Your task to perform on an android device: See recent photos Image 0: 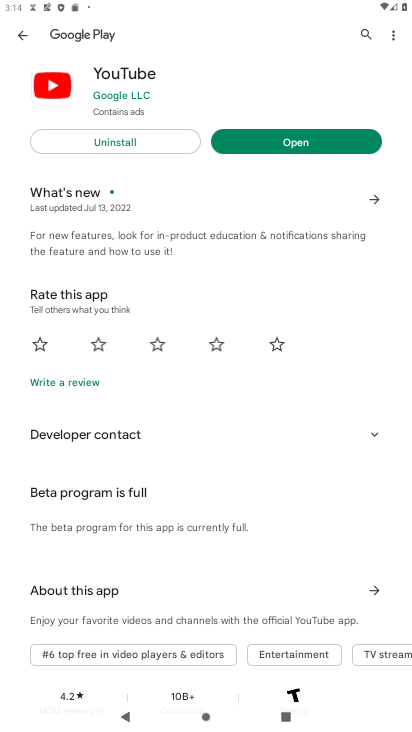
Step 0: press home button
Your task to perform on an android device: See recent photos Image 1: 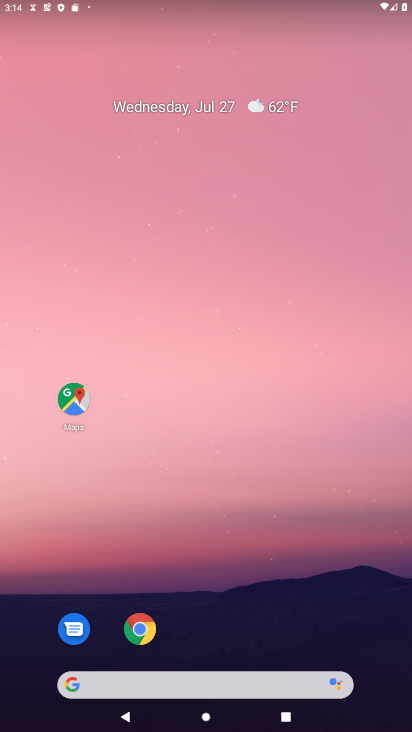
Step 1: drag from (209, 685) to (197, 105)
Your task to perform on an android device: See recent photos Image 2: 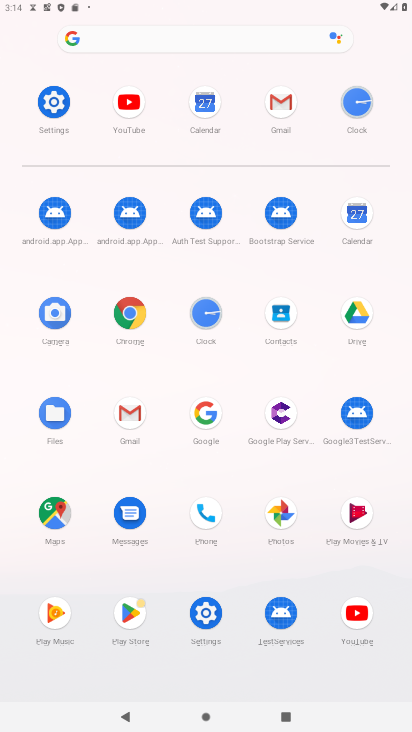
Step 2: click (282, 514)
Your task to perform on an android device: See recent photos Image 3: 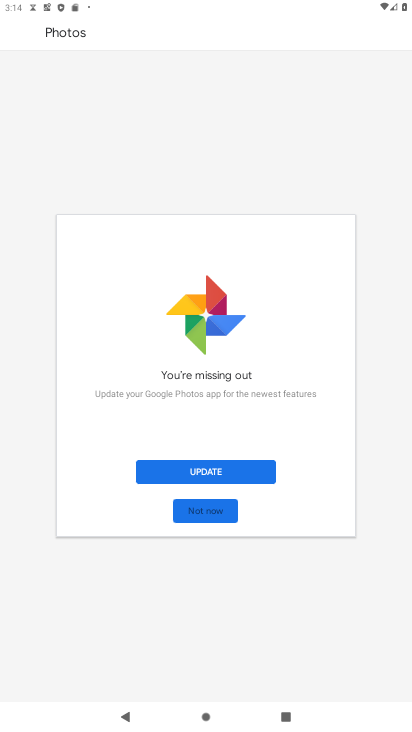
Step 3: click (192, 475)
Your task to perform on an android device: See recent photos Image 4: 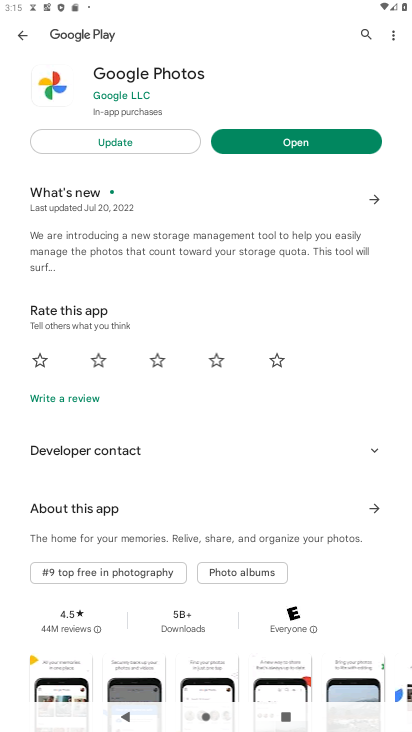
Step 4: click (114, 143)
Your task to perform on an android device: See recent photos Image 5: 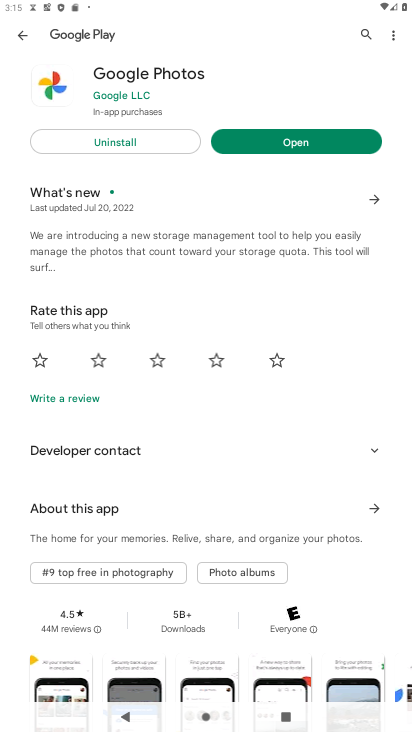
Step 5: click (130, 193)
Your task to perform on an android device: See recent photos Image 6: 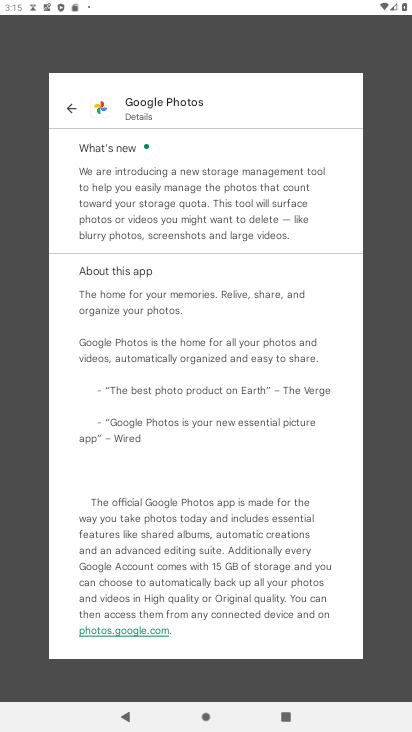
Step 6: click (64, 108)
Your task to perform on an android device: See recent photos Image 7: 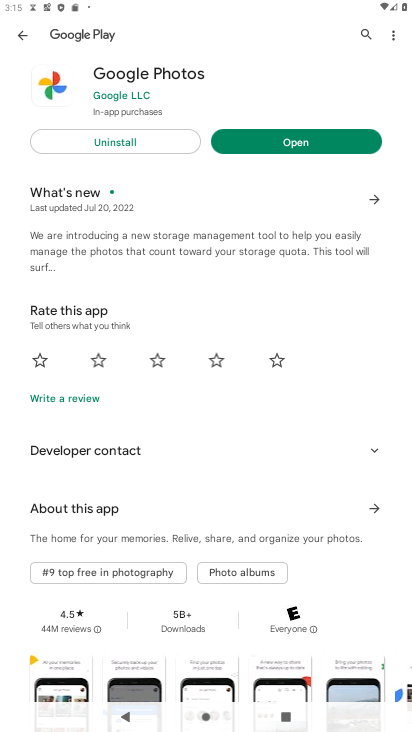
Step 7: click (278, 140)
Your task to perform on an android device: See recent photos Image 8: 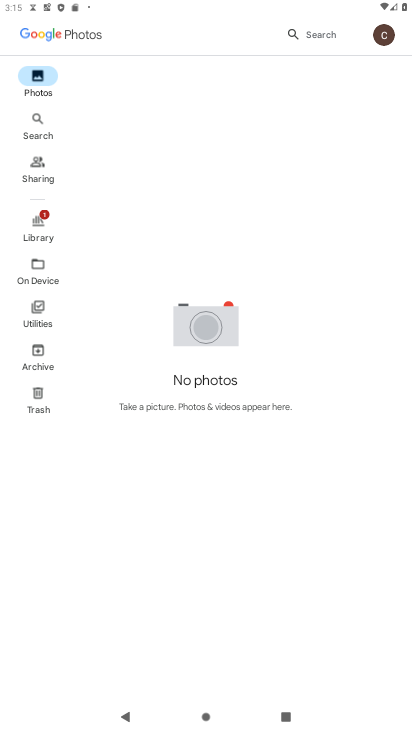
Step 8: click (42, 226)
Your task to perform on an android device: See recent photos Image 9: 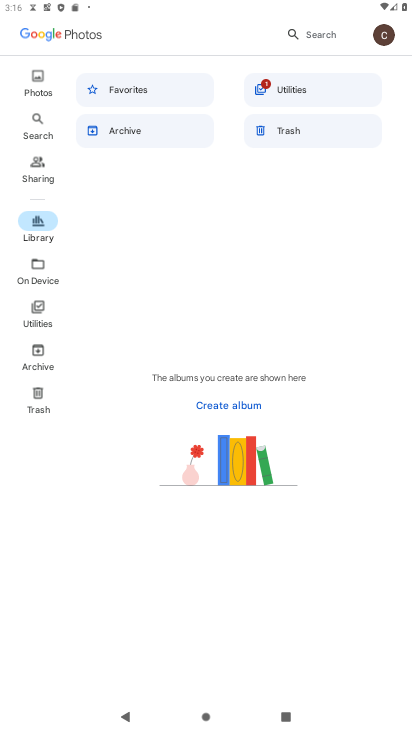
Step 9: click (43, 83)
Your task to perform on an android device: See recent photos Image 10: 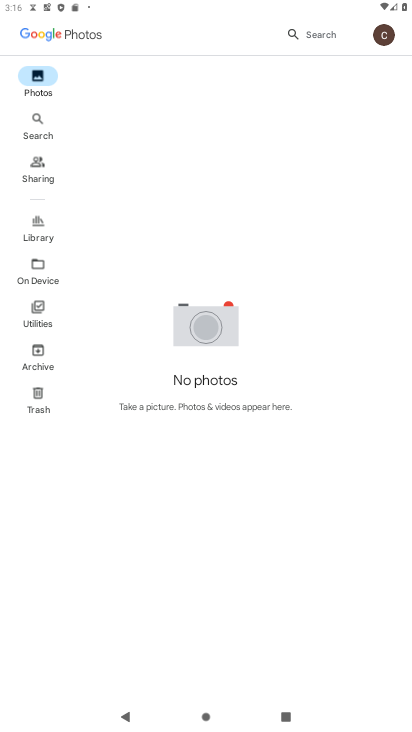
Step 10: task complete